Your task to perform on an android device: Find coffee shops on Maps Image 0: 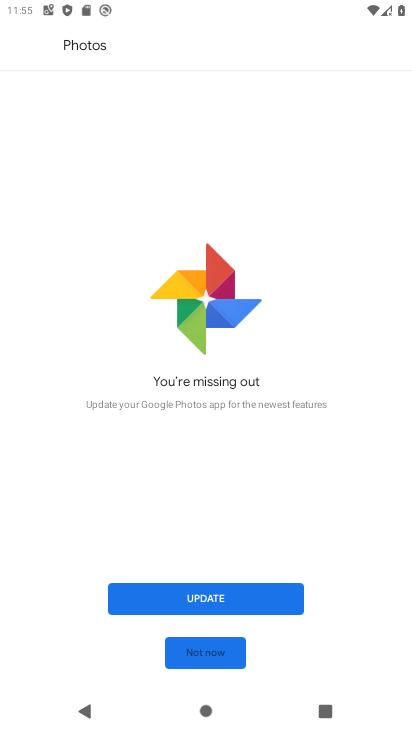
Step 0: press home button
Your task to perform on an android device: Find coffee shops on Maps Image 1: 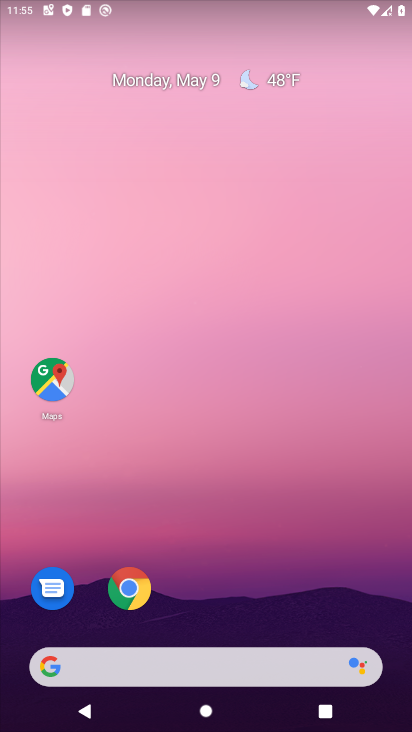
Step 1: click (66, 386)
Your task to perform on an android device: Find coffee shops on Maps Image 2: 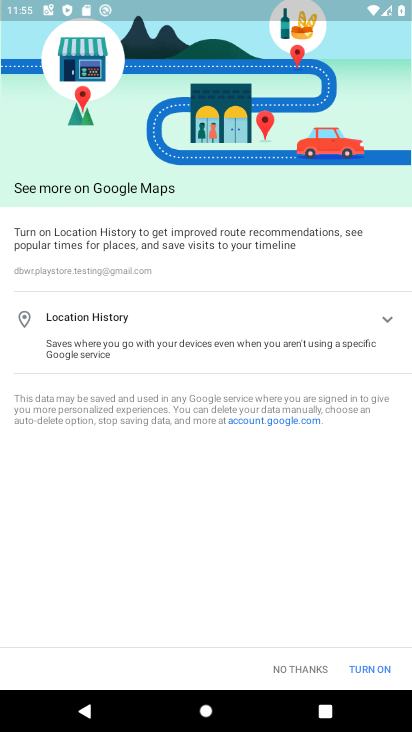
Step 2: task complete